Your task to perform on an android device: turn on showing notifications on the lock screen Image 0: 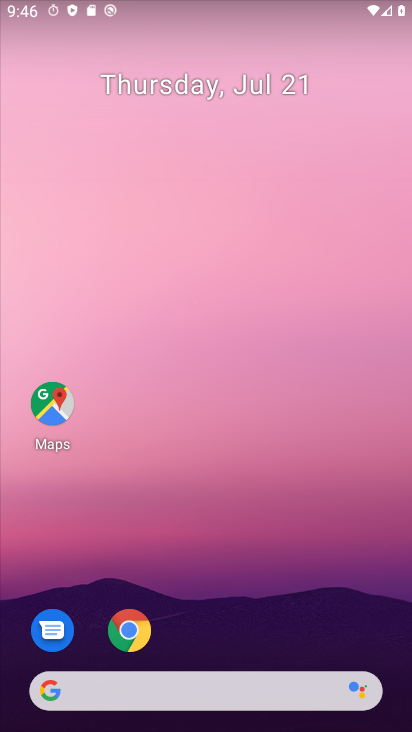
Step 0: drag from (206, 339) to (192, 89)
Your task to perform on an android device: turn on showing notifications on the lock screen Image 1: 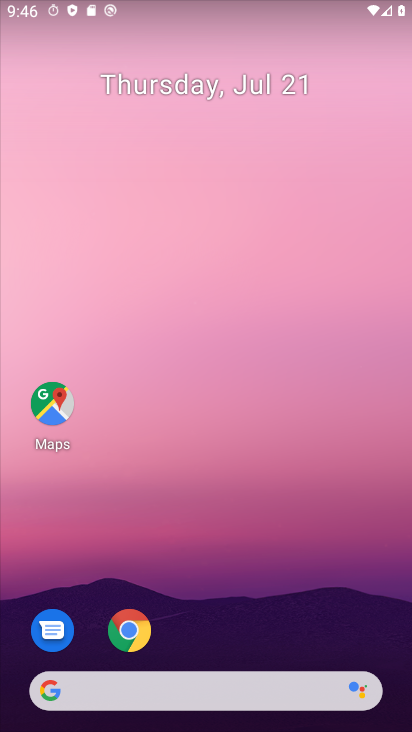
Step 1: drag from (205, 494) to (205, 86)
Your task to perform on an android device: turn on showing notifications on the lock screen Image 2: 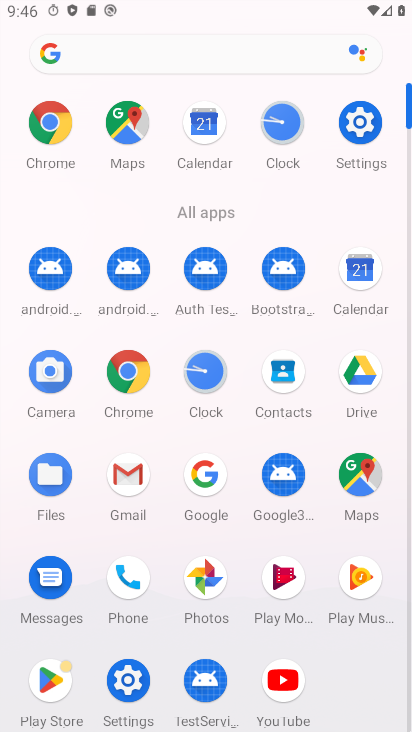
Step 2: click (354, 124)
Your task to perform on an android device: turn on showing notifications on the lock screen Image 3: 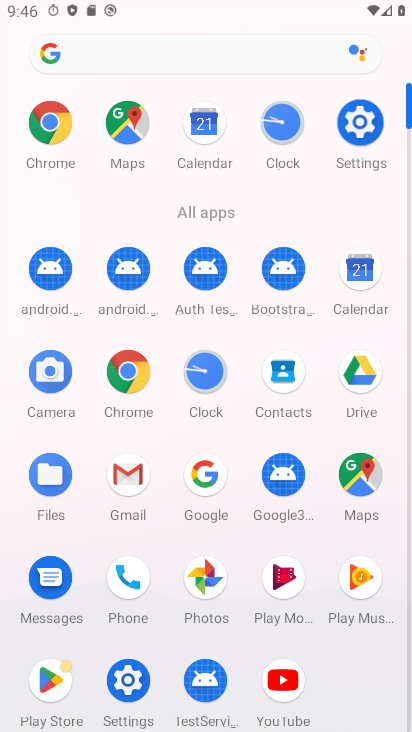
Step 3: click (355, 124)
Your task to perform on an android device: turn on showing notifications on the lock screen Image 4: 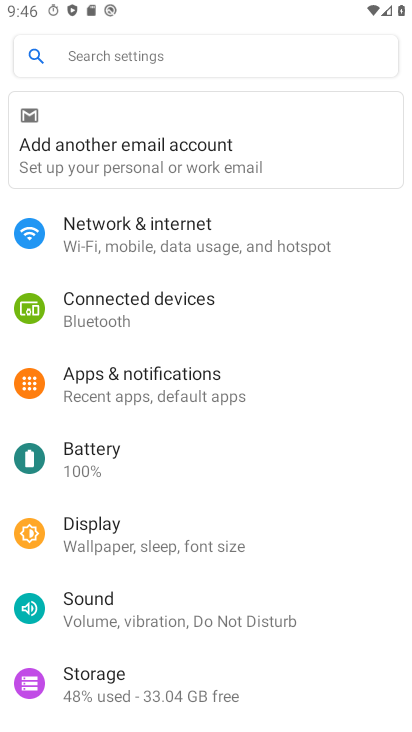
Step 4: click (151, 369)
Your task to perform on an android device: turn on showing notifications on the lock screen Image 5: 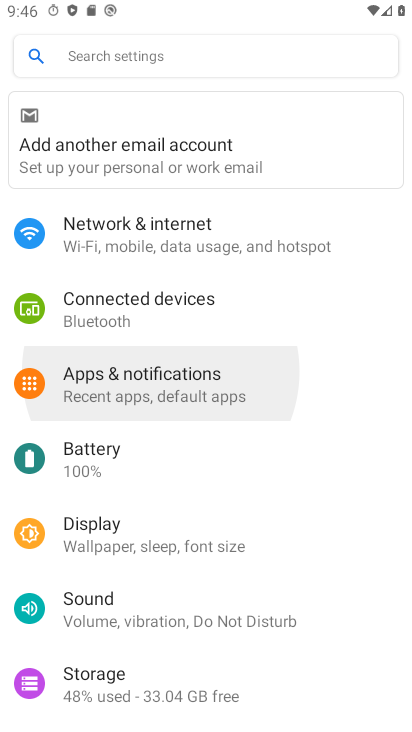
Step 5: click (151, 369)
Your task to perform on an android device: turn on showing notifications on the lock screen Image 6: 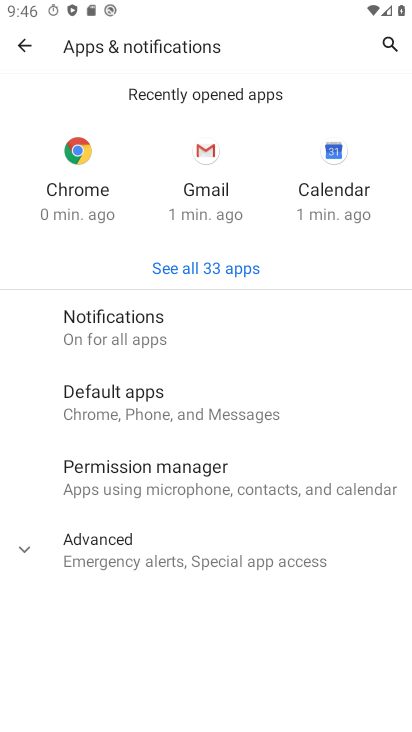
Step 6: click (108, 342)
Your task to perform on an android device: turn on showing notifications on the lock screen Image 7: 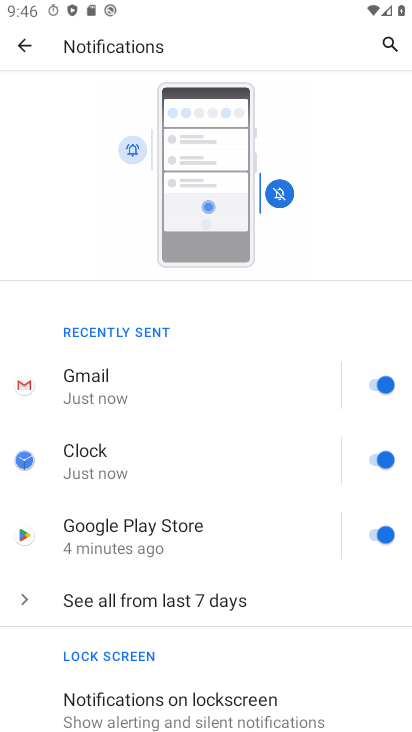
Step 7: drag from (178, 710) to (232, 224)
Your task to perform on an android device: turn on showing notifications on the lock screen Image 8: 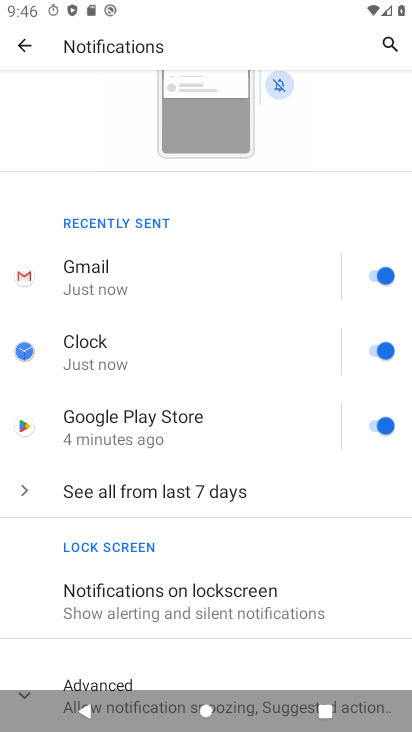
Step 8: click (167, 609)
Your task to perform on an android device: turn on showing notifications on the lock screen Image 9: 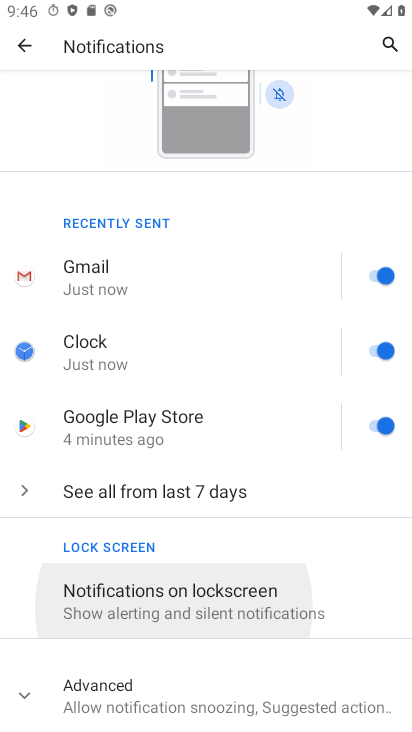
Step 9: click (168, 608)
Your task to perform on an android device: turn on showing notifications on the lock screen Image 10: 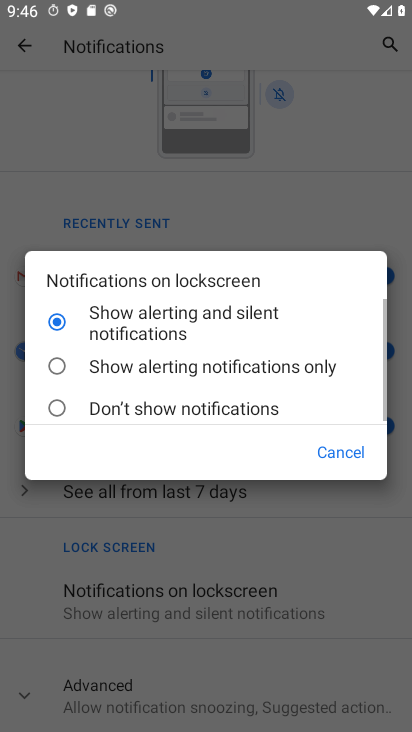
Step 10: click (64, 357)
Your task to perform on an android device: turn on showing notifications on the lock screen Image 11: 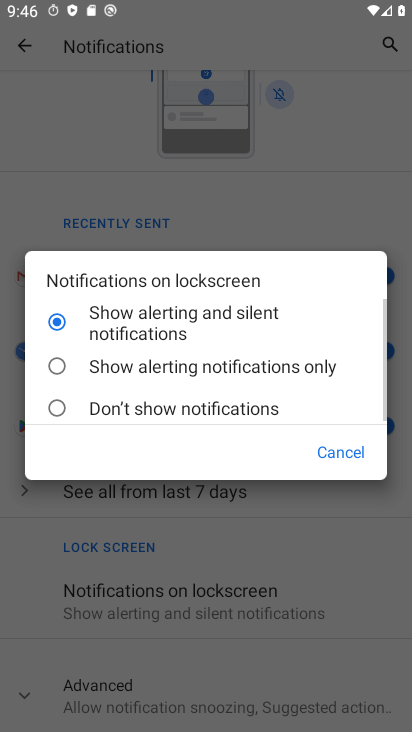
Step 11: click (64, 357)
Your task to perform on an android device: turn on showing notifications on the lock screen Image 12: 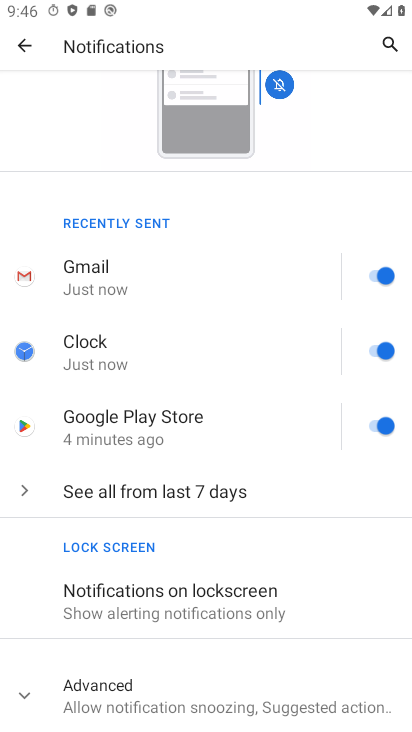
Step 12: task complete